Your task to perform on an android device: Is it going to rain tomorrow? Image 0: 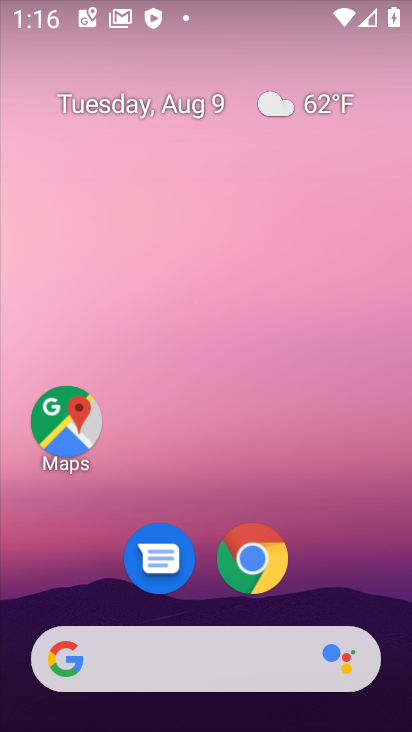
Step 0: click (243, 656)
Your task to perform on an android device: Is it going to rain tomorrow? Image 1: 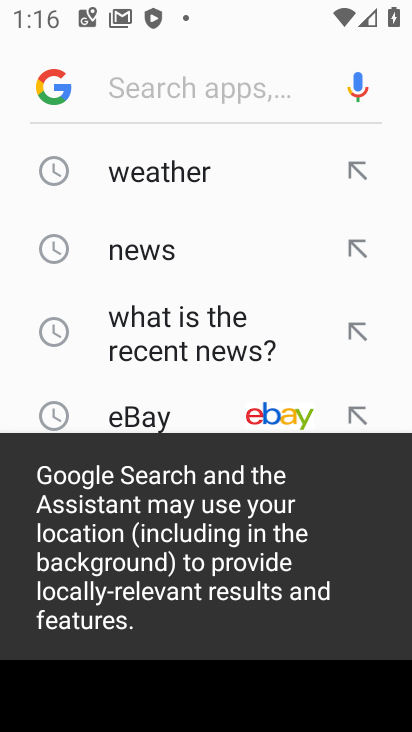
Step 1: click (180, 171)
Your task to perform on an android device: Is it going to rain tomorrow? Image 2: 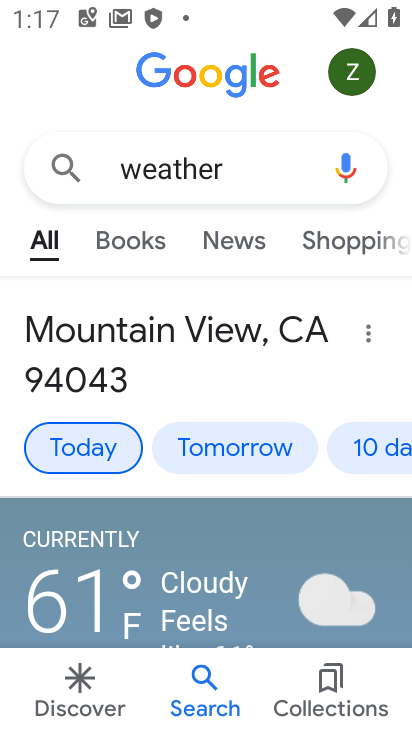
Step 2: click (271, 443)
Your task to perform on an android device: Is it going to rain tomorrow? Image 3: 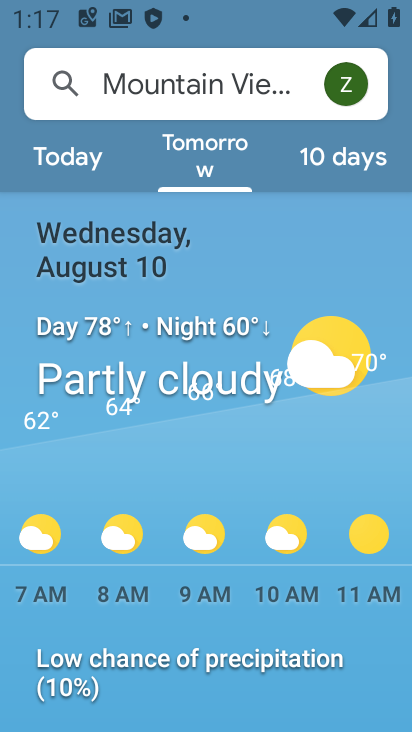
Step 3: task complete